Your task to perform on an android device: check the backup settings in the google photos Image 0: 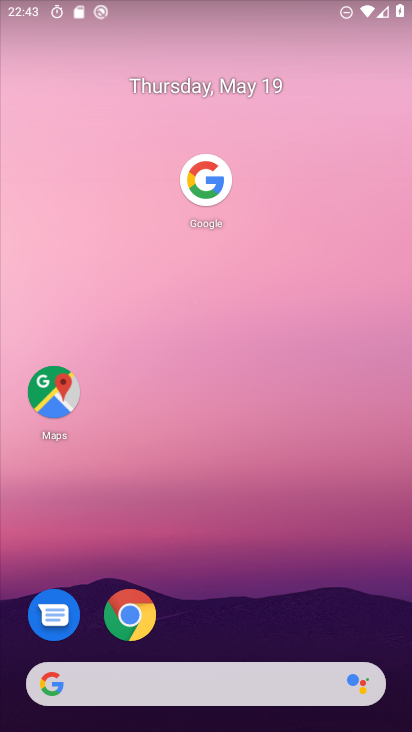
Step 0: drag from (268, 595) to (324, 73)
Your task to perform on an android device: check the backup settings in the google photos Image 1: 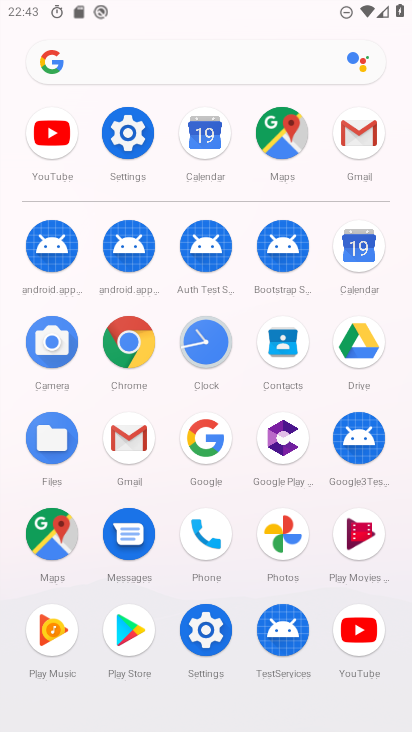
Step 1: click (291, 529)
Your task to perform on an android device: check the backup settings in the google photos Image 2: 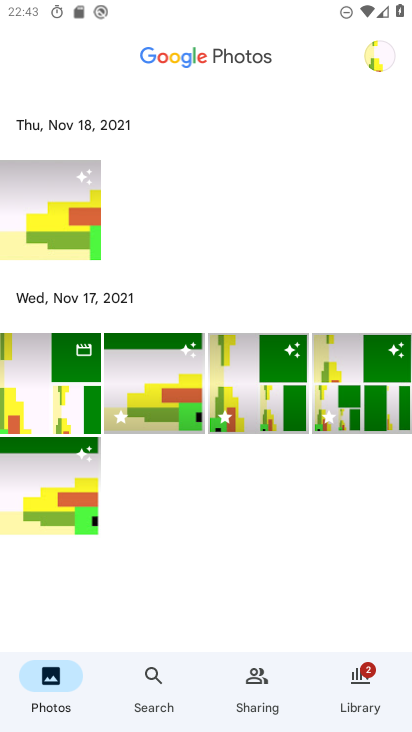
Step 2: click (381, 57)
Your task to perform on an android device: check the backup settings in the google photos Image 3: 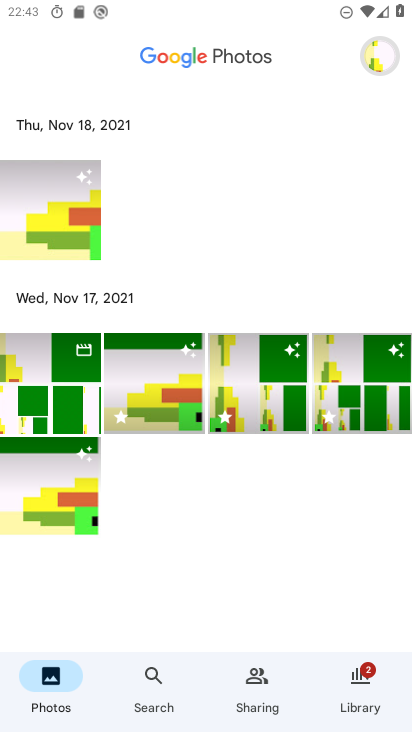
Step 3: click (380, 64)
Your task to perform on an android device: check the backup settings in the google photos Image 4: 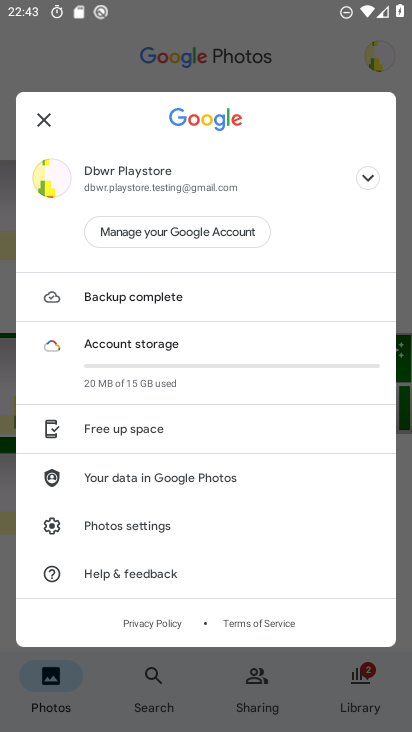
Step 4: click (124, 528)
Your task to perform on an android device: check the backup settings in the google photos Image 5: 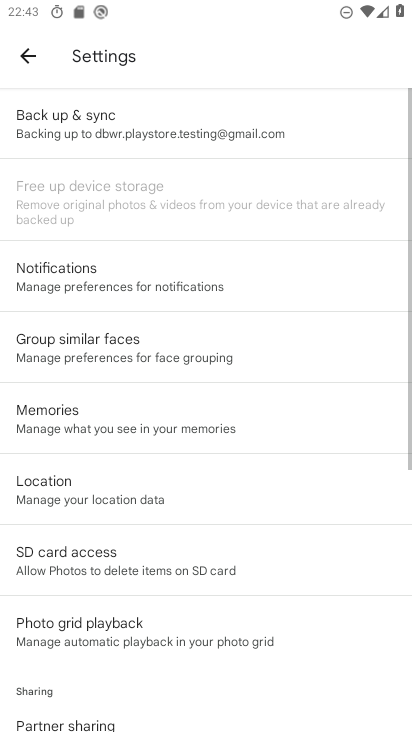
Step 5: click (135, 122)
Your task to perform on an android device: check the backup settings in the google photos Image 6: 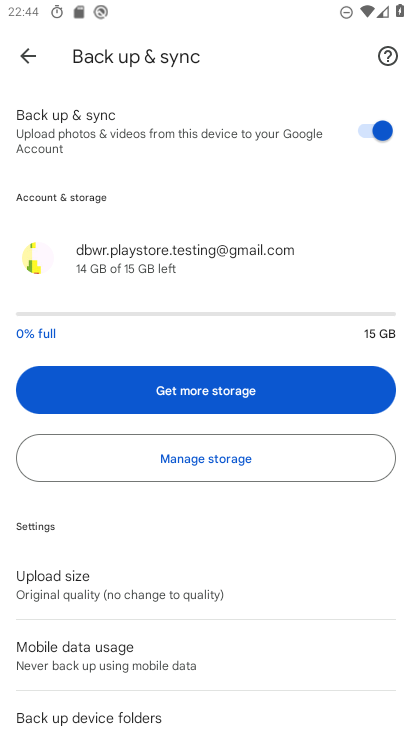
Step 6: task complete